Your task to perform on an android device: add a contact in the contacts app Image 0: 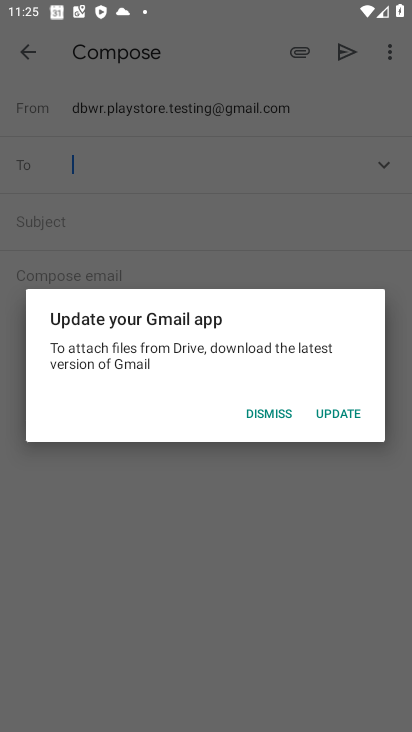
Step 0: press home button
Your task to perform on an android device: add a contact in the contacts app Image 1: 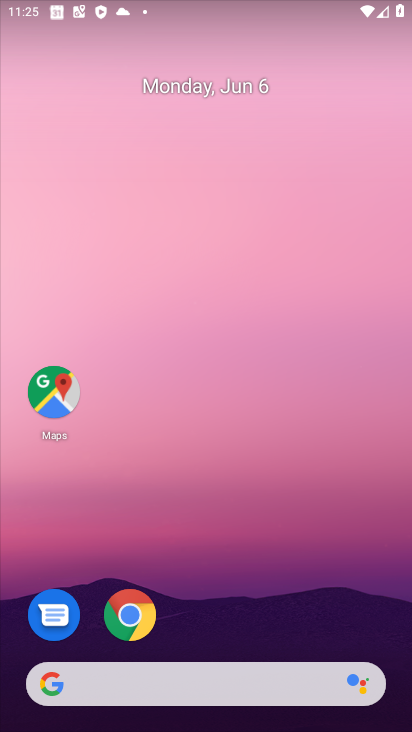
Step 1: drag from (297, 575) to (282, 0)
Your task to perform on an android device: add a contact in the contacts app Image 2: 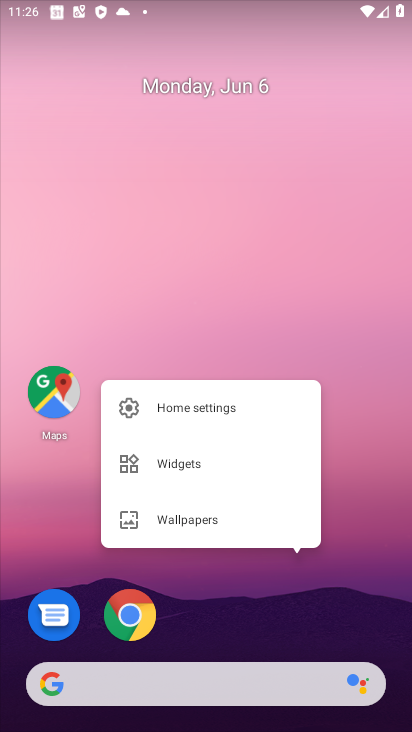
Step 2: click (262, 316)
Your task to perform on an android device: add a contact in the contacts app Image 3: 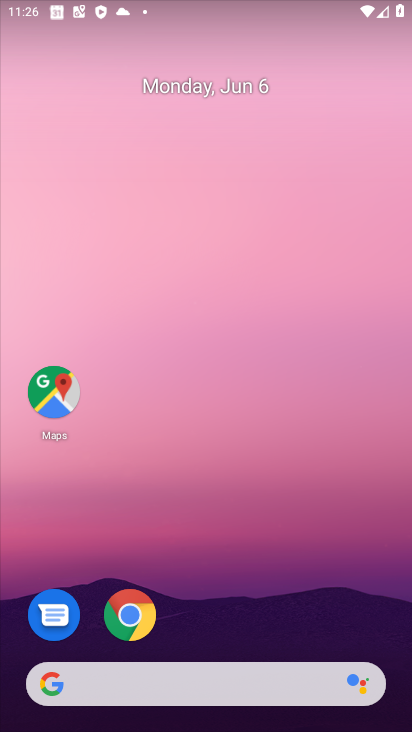
Step 3: drag from (211, 600) to (220, 8)
Your task to perform on an android device: add a contact in the contacts app Image 4: 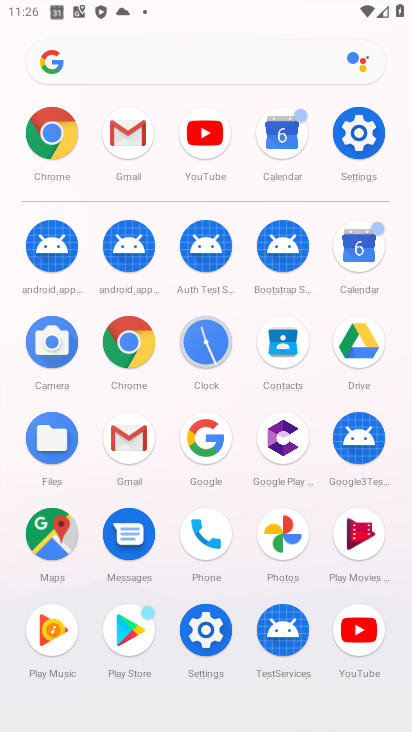
Step 4: click (290, 348)
Your task to perform on an android device: add a contact in the contacts app Image 5: 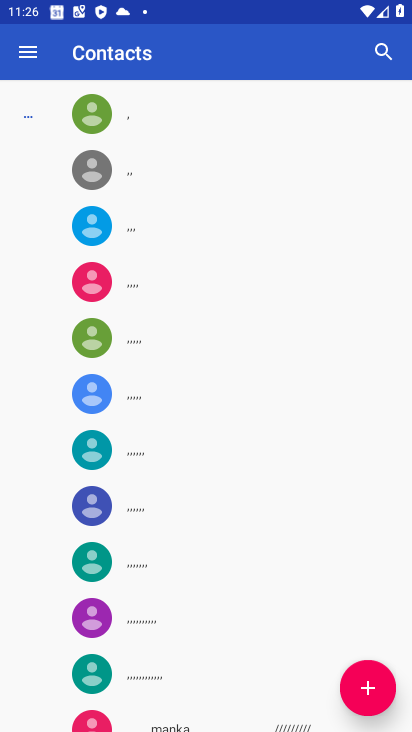
Step 5: task complete